Your task to perform on an android device: Go to Google maps Image 0: 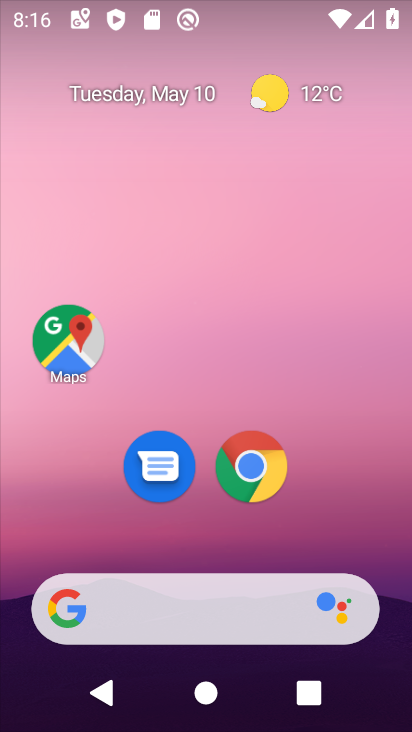
Step 0: drag from (227, 553) to (264, 91)
Your task to perform on an android device: Go to Google maps Image 1: 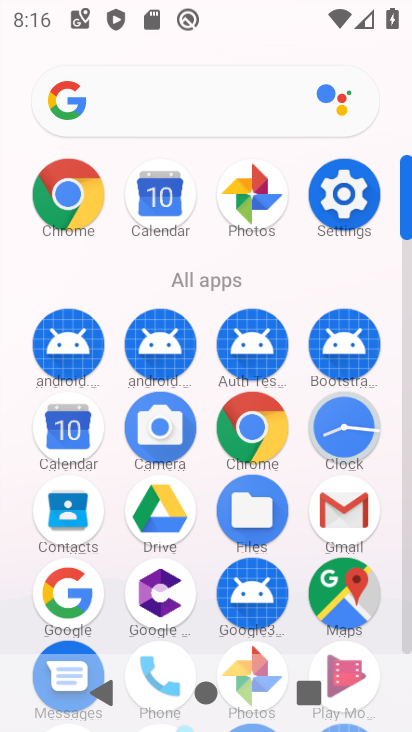
Step 1: click (332, 607)
Your task to perform on an android device: Go to Google maps Image 2: 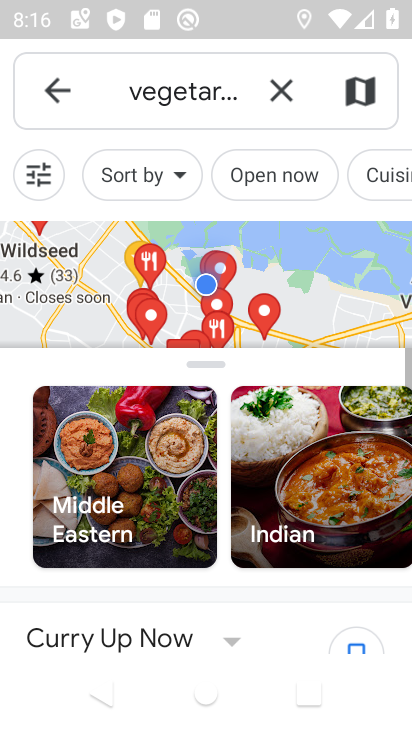
Step 2: click (63, 93)
Your task to perform on an android device: Go to Google maps Image 3: 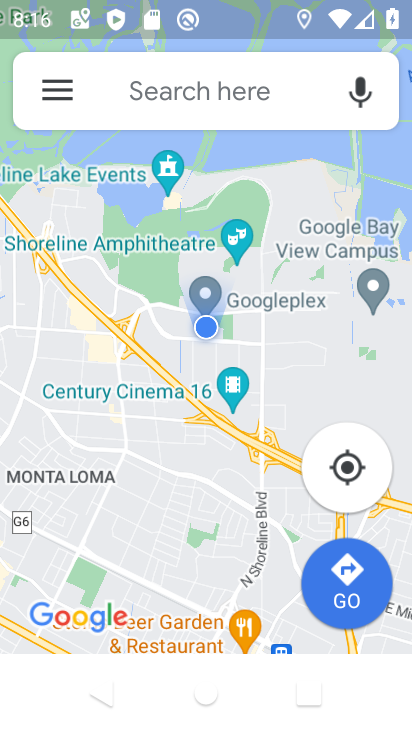
Step 3: task complete